Your task to perform on an android device: Check the weather Image 0: 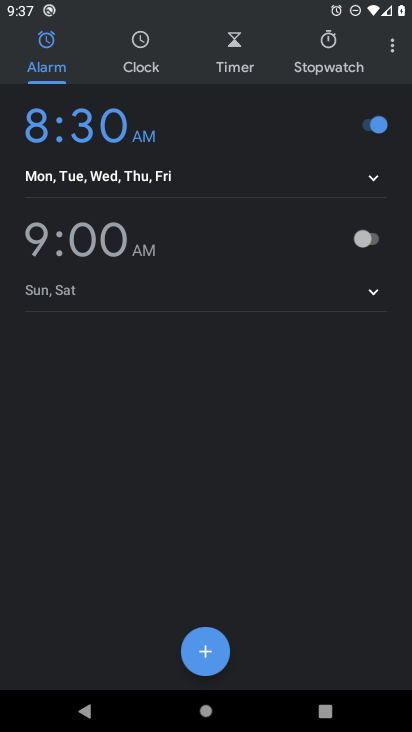
Step 0: press home button
Your task to perform on an android device: Check the weather Image 1: 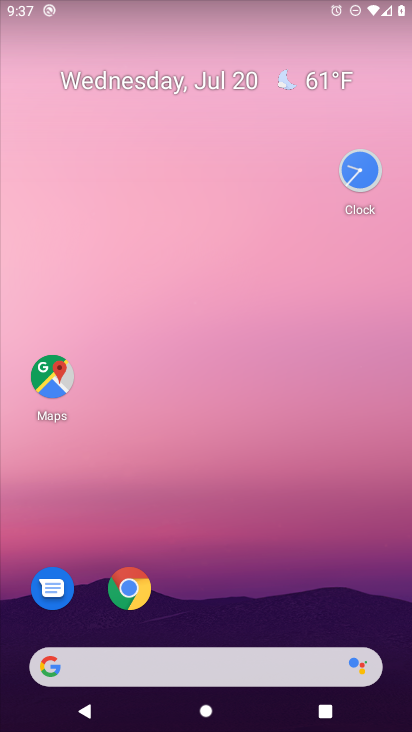
Step 1: click (152, 679)
Your task to perform on an android device: Check the weather Image 2: 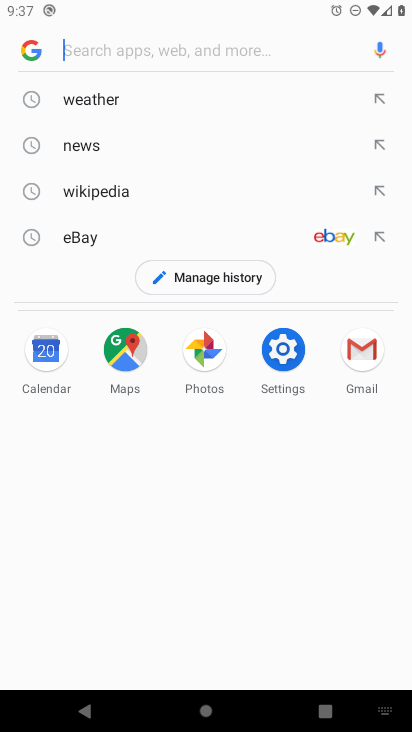
Step 2: click (88, 101)
Your task to perform on an android device: Check the weather Image 3: 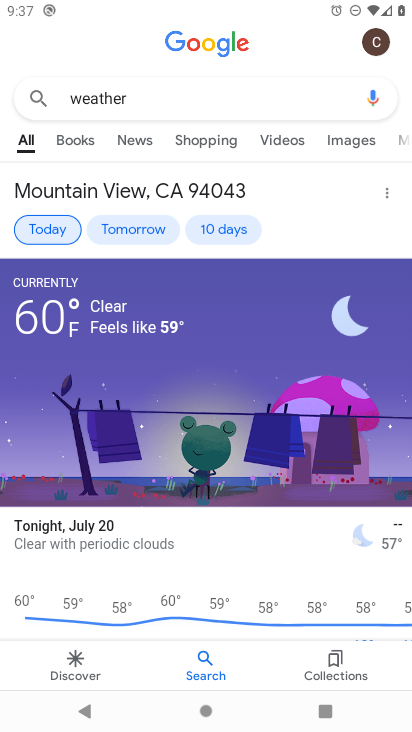
Step 3: task complete